Your task to perform on an android device: Go to Yahoo.com Image 0: 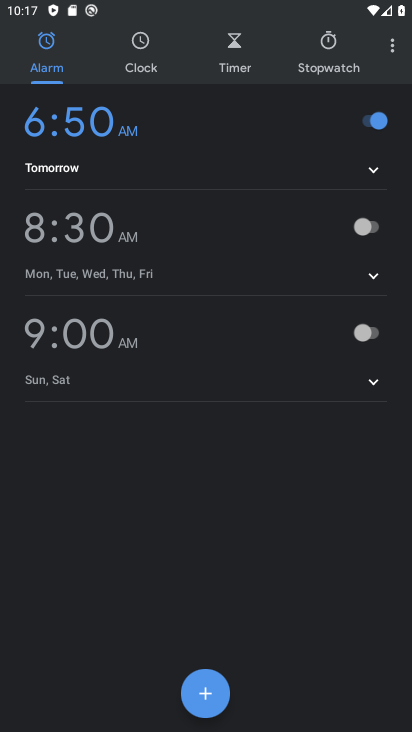
Step 0: press back button
Your task to perform on an android device: Go to Yahoo.com Image 1: 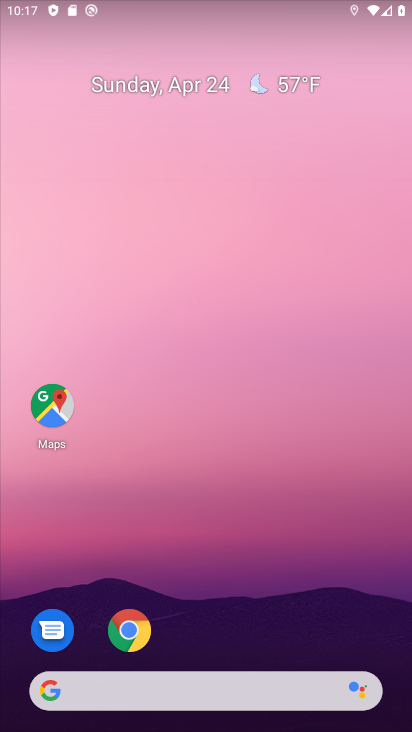
Step 1: click (125, 626)
Your task to perform on an android device: Go to Yahoo.com Image 2: 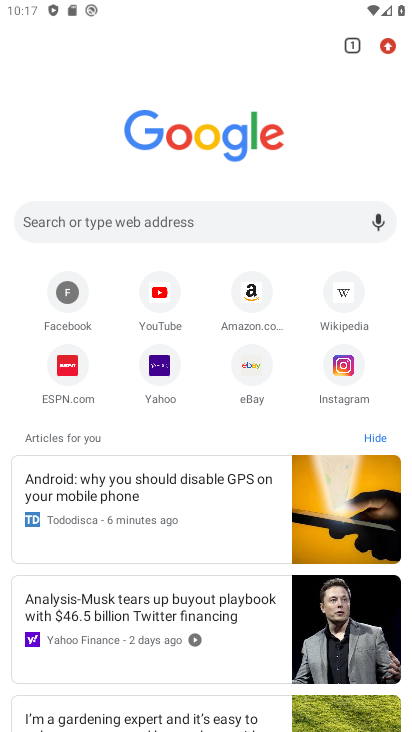
Step 2: click (151, 220)
Your task to perform on an android device: Go to Yahoo.com Image 3: 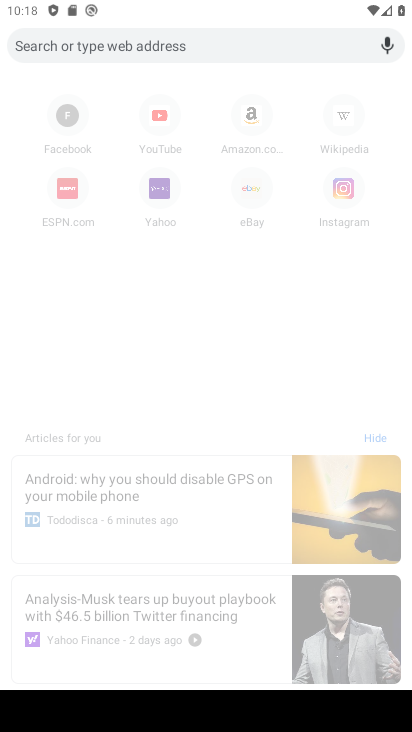
Step 3: type "Yahoo.com"
Your task to perform on an android device: Go to Yahoo.com Image 4: 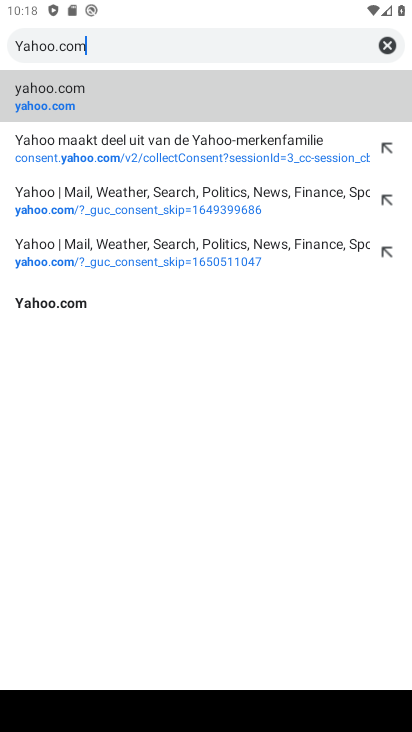
Step 4: click (66, 308)
Your task to perform on an android device: Go to Yahoo.com Image 5: 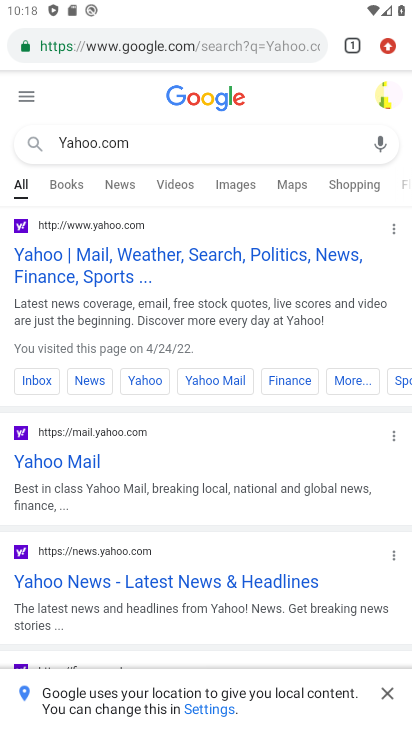
Step 5: task complete